Your task to perform on an android device: check battery use Image 0: 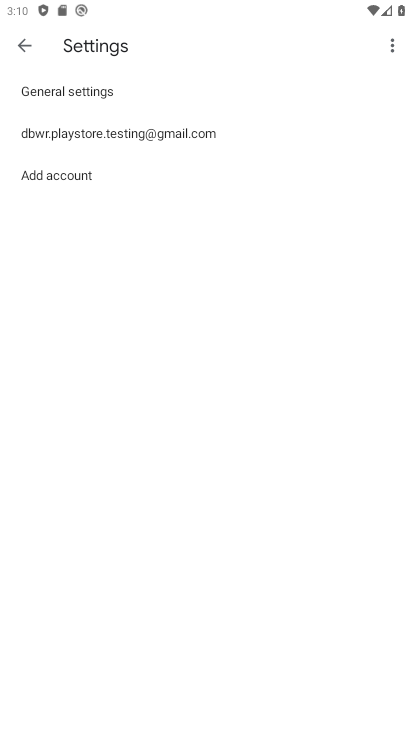
Step 0: press home button
Your task to perform on an android device: check battery use Image 1: 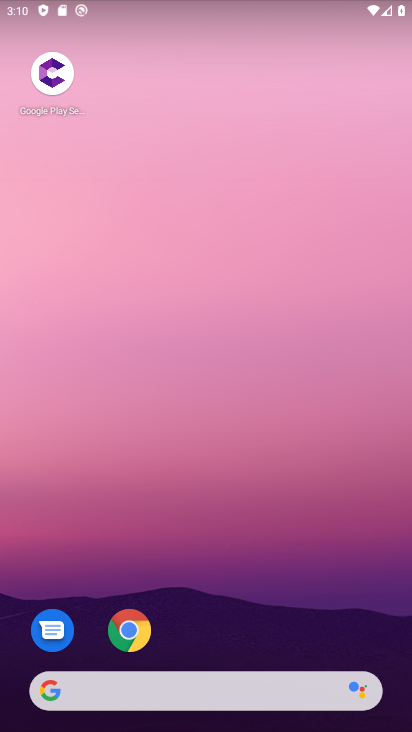
Step 1: drag from (232, 619) to (298, 3)
Your task to perform on an android device: check battery use Image 2: 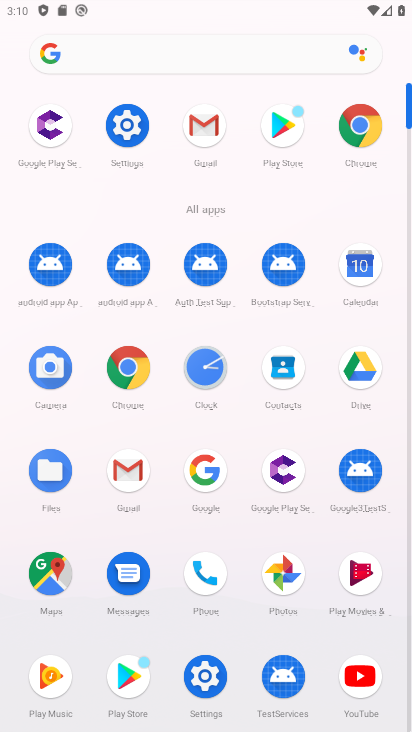
Step 2: click (198, 680)
Your task to perform on an android device: check battery use Image 3: 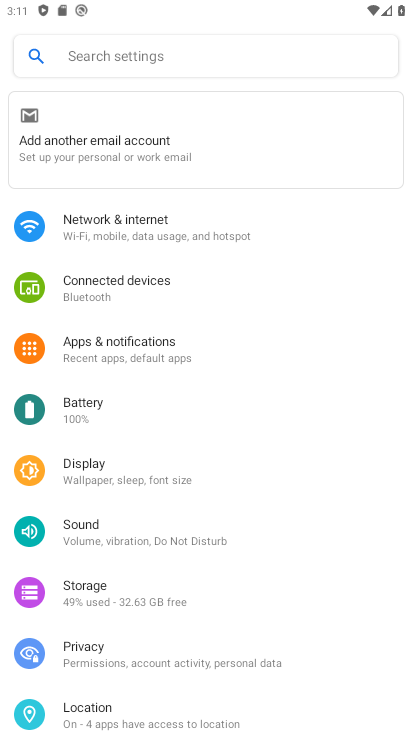
Step 3: click (110, 408)
Your task to perform on an android device: check battery use Image 4: 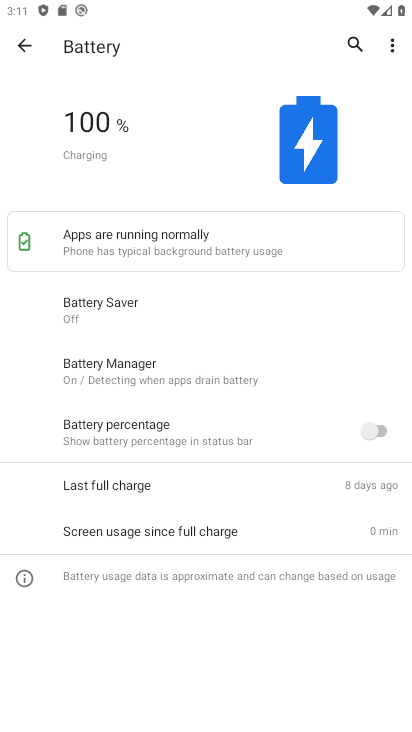
Step 4: click (398, 34)
Your task to perform on an android device: check battery use Image 5: 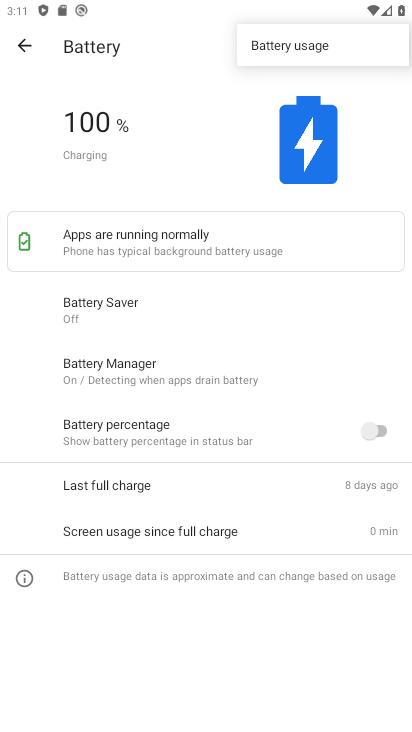
Step 5: click (301, 31)
Your task to perform on an android device: check battery use Image 6: 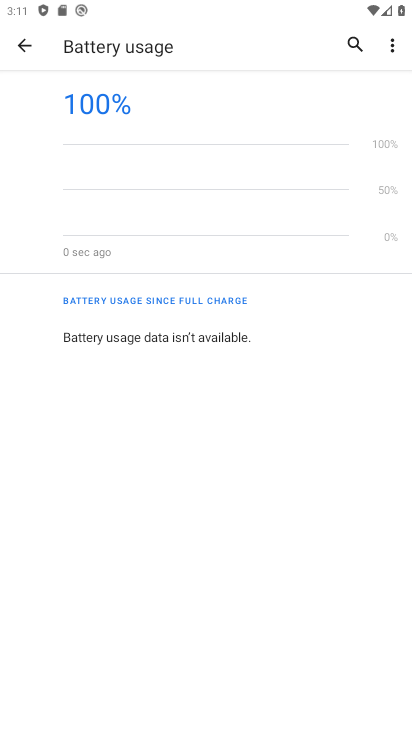
Step 6: task complete